Your task to perform on an android device: turn on showing notifications on the lock screen Image 0: 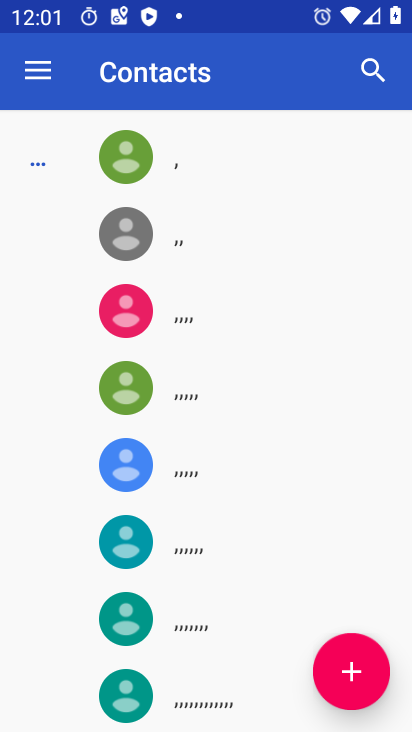
Step 0: press home button
Your task to perform on an android device: turn on showing notifications on the lock screen Image 1: 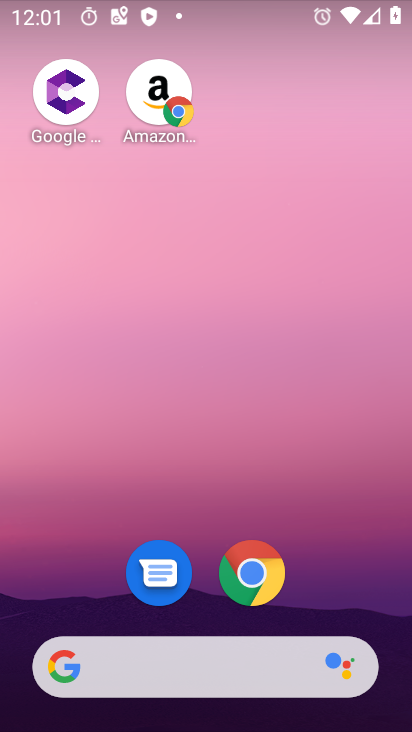
Step 1: drag from (291, 673) to (359, 230)
Your task to perform on an android device: turn on showing notifications on the lock screen Image 2: 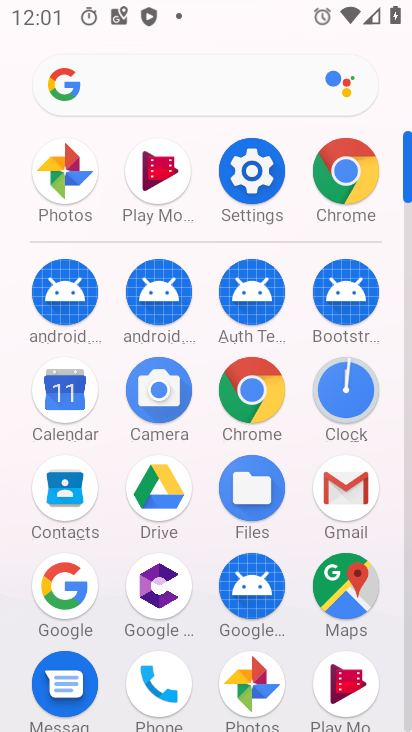
Step 2: click (238, 170)
Your task to perform on an android device: turn on showing notifications on the lock screen Image 3: 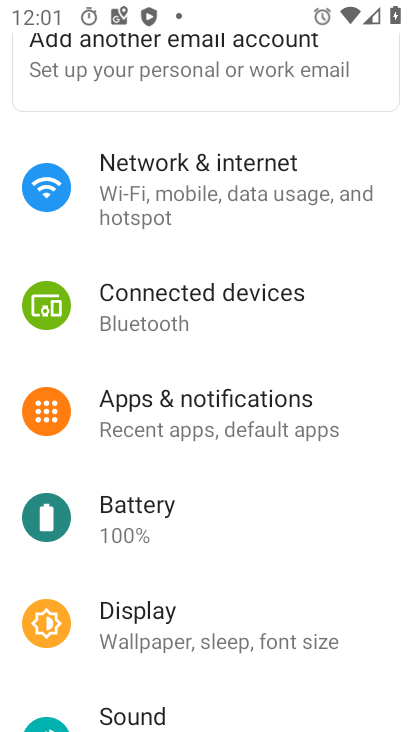
Step 3: drag from (157, 158) to (160, 261)
Your task to perform on an android device: turn on showing notifications on the lock screen Image 4: 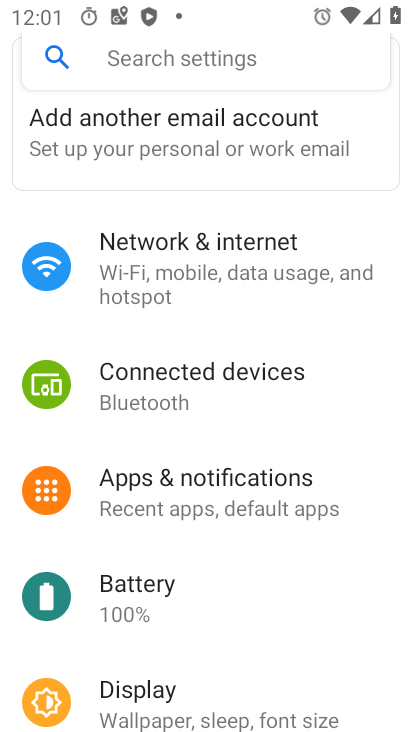
Step 4: click (184, 56)
Your task to perform on an android device: turn on showing notifications on the lock screen Image 5: 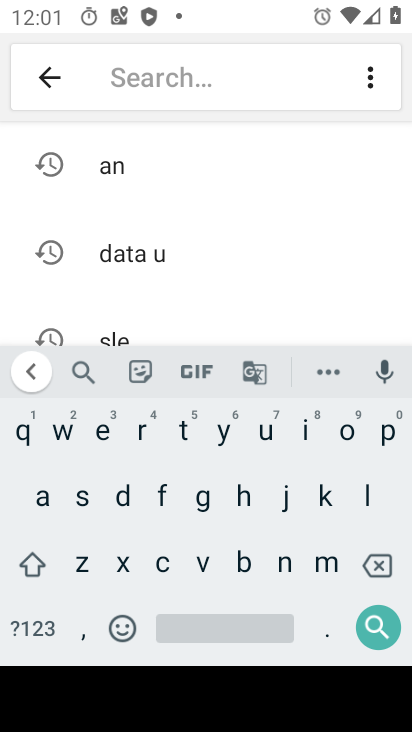
Step 5: click (275, 560)
Your task to perform on an android device: turn on showing notifications on the lock screen Image 6: 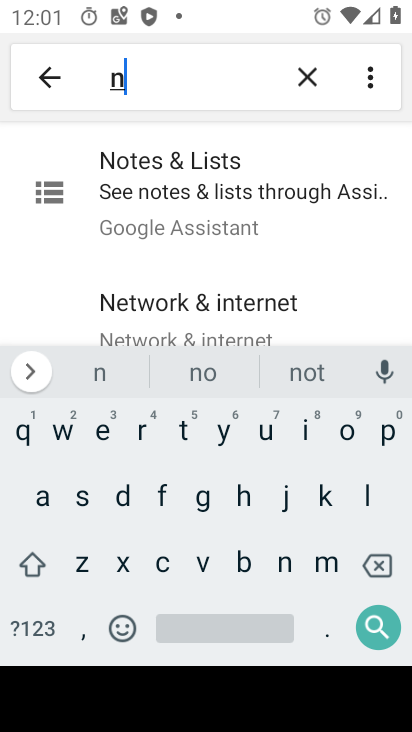
Step 6: click (343, 437)
Your task to perform on an android device: turn on showing notifications on the lock screen Image 7: 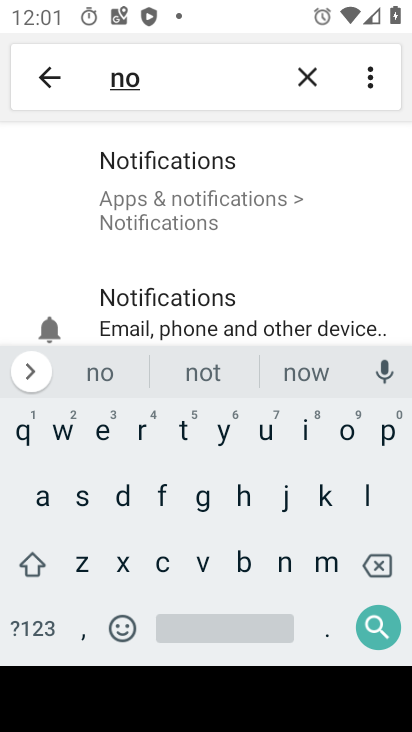
Step 7: click (157, 208)
Your task to perform on an android device: turn on showing notifications on the lock screen Image 8: 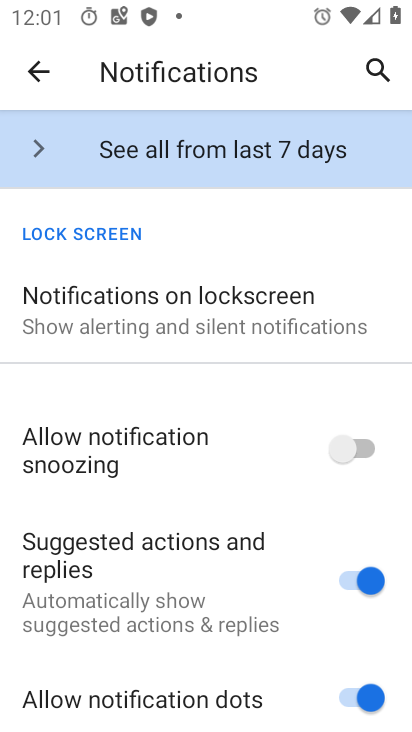
Step 8: click (88, 335)
Your task to perform on an android device: turn on showing notifications on the lock screen Image 9: 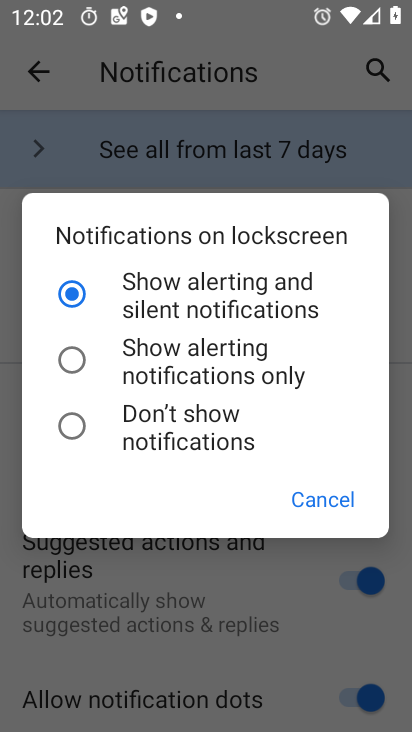
Step 9: task complete